Your task to perform on an android device: Show me productivity apps on the Play Store Image 0: 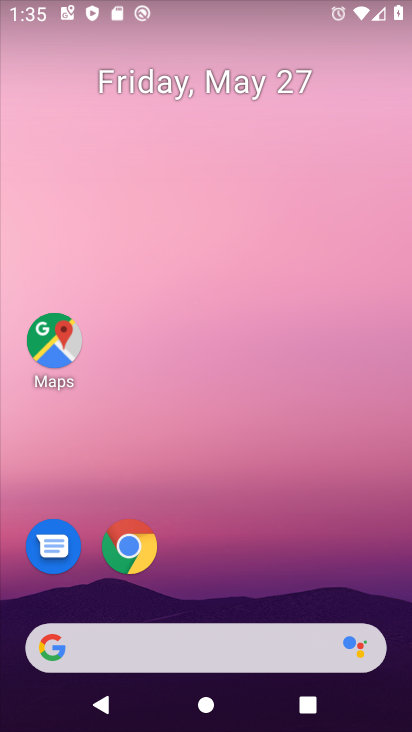
Step 0: drag from (255, 680) to (331, 116)
Your task to perform on an android device: Show me productivity apps on the Play Store Image 1: 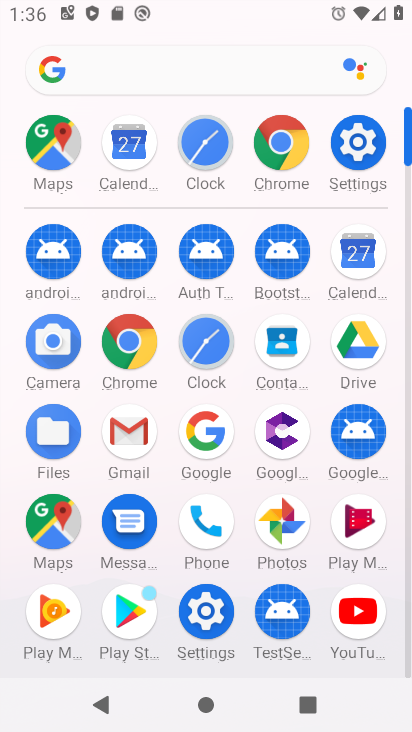
Step 1: click (146, 583)
Your task to perform on an android device: Show me productivity apps on the Play Store Image 2: 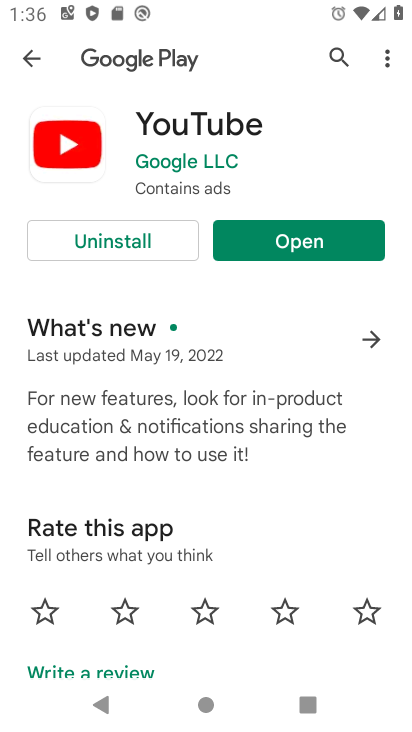
Step 2: click (340, 58)
Your task to perform on an android device: Show me productivity apps on the Play Store Image 3: 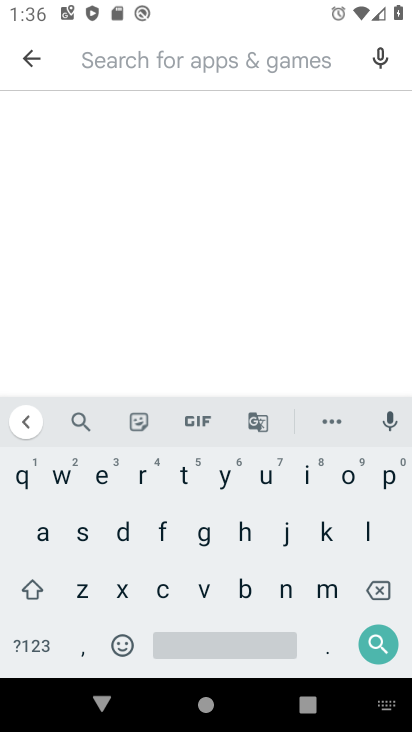
Step 3: click (387, 479)
Your task to perform on an android device: Show me productivity apps on the Play Store Image 4: 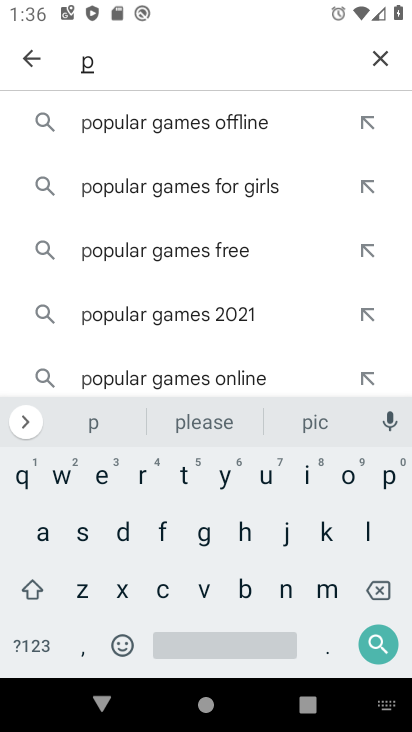
Step 4: click (142, 477)
Your task to perform on an android device: Show me productivity apps on the Play Store Image 5: 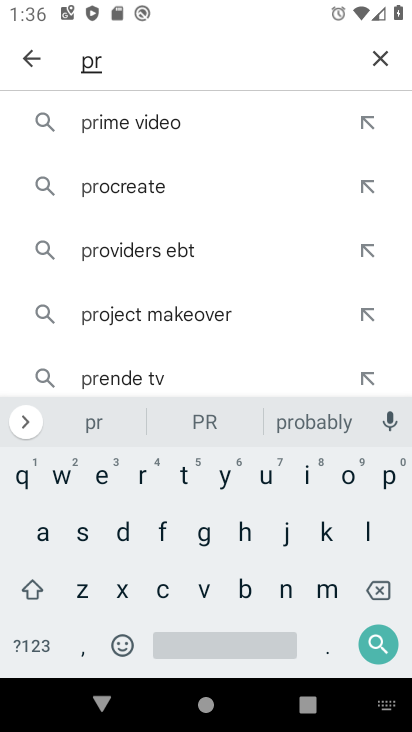
Step 5: click (345, 472)
Your task to perform on an android device: Show me productivity apps on the Play Store Image 6: 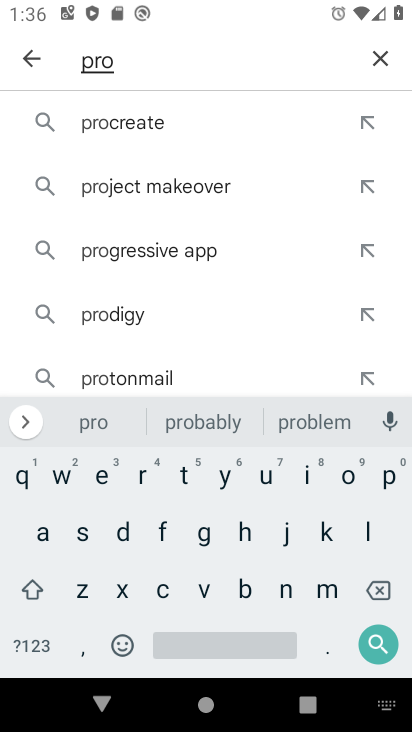
Step 6: click (124, 534)
Your task to perform on an android device: Show me productivity apps on the Play Store Image 7: 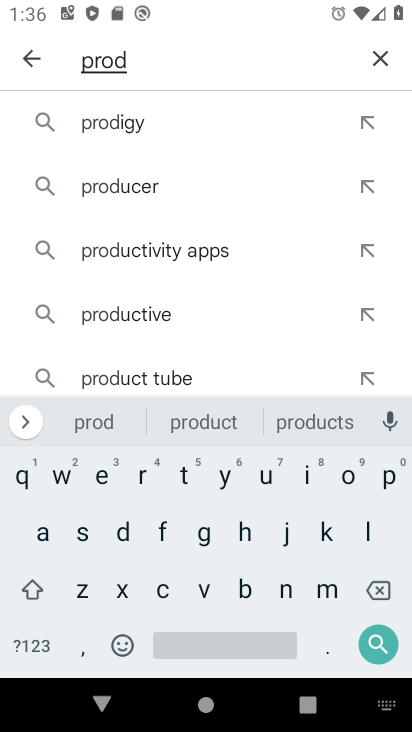
Step 7: click (268, 467)
Your task to perform on an android device: Show me productivity apps on the Play Store Image 8: 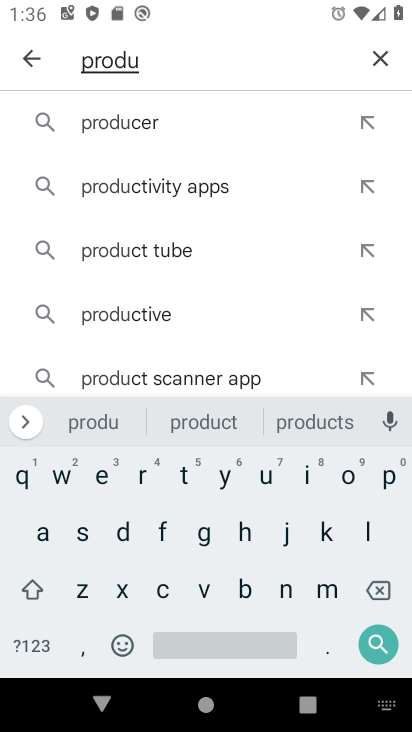
Step 8: click (161, 590)
Your task to perform on an android device: Show me productivity apps on the Play Store Image 9: 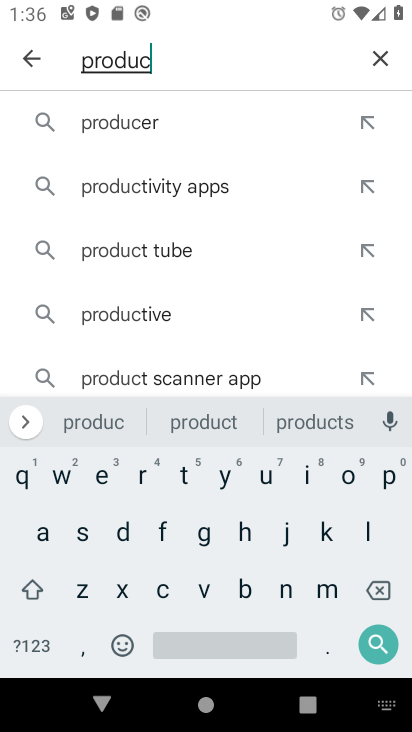
Step 9: click (185, 475)
Your task to perform on an android device: Show me productivity apps on the Play Store Image 10: 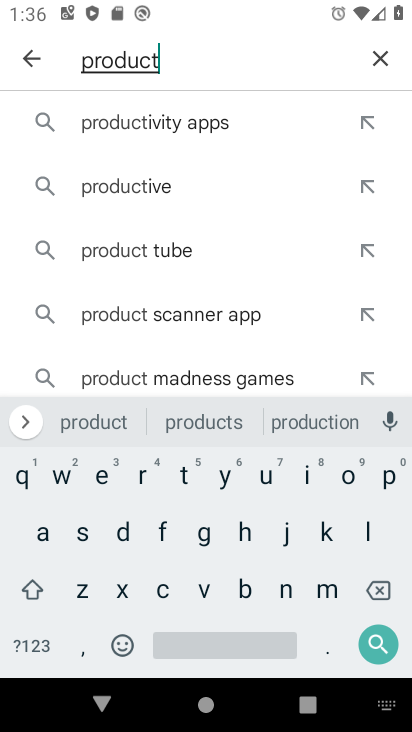
Step 10: click (196, 109)
Your task to perform on an android device: Show me productivity apps on the Play Store Image 11: 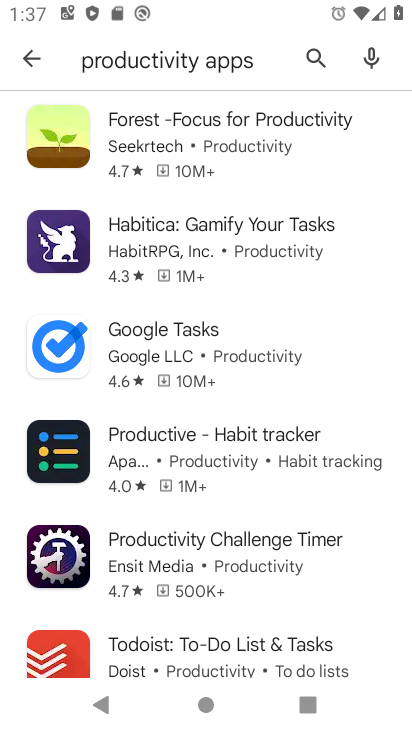
Step 11: task complete